Your task to perform on an android device: turn on bluetooth scan Image 0: 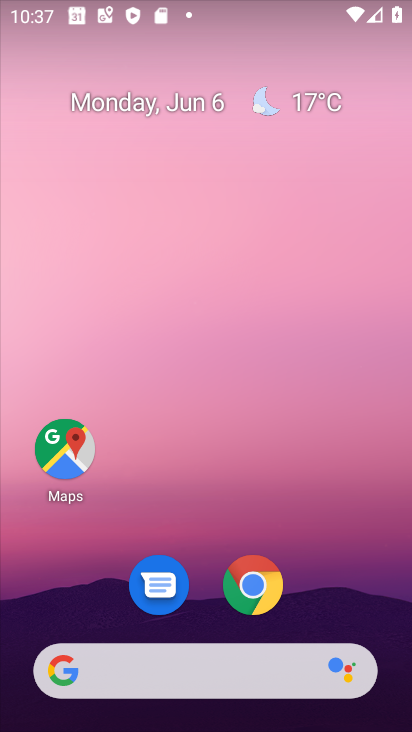
Step 0: drag from (227, 492) to (275, 26)
Your task to perform on an android device: turn on bluetooth scan Image 1: 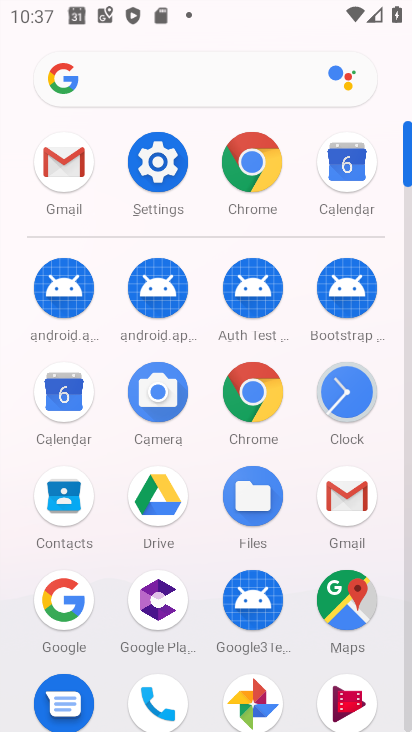
Step 1: click (161, 167)
Your task to perform on an android device: turn on bluetooth scan Image 2: 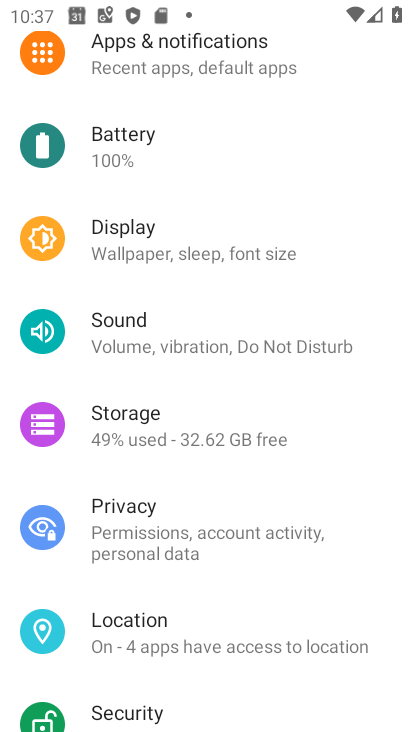
Step 2: click (211, 640)
Your task to perform on an android device: turn on bluetooth scan Image 3: 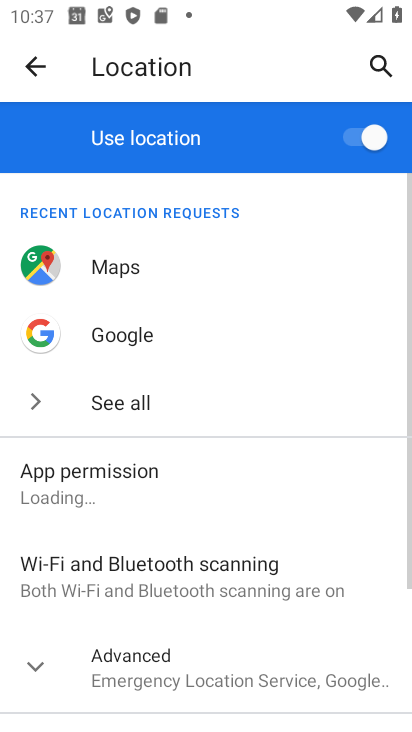
Step 3: click (254, 568)
Your task to perform on an android device: turn on bluetooth scan Image 4: 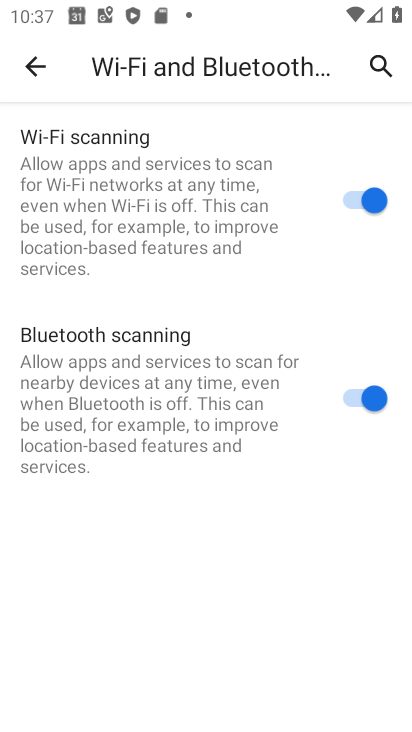
Step 4: task complete